Your task to perform on an android device: What's the weather? Image 0: 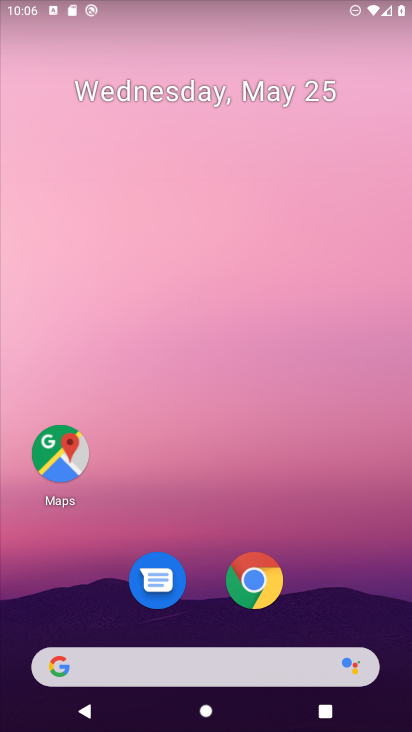
Step 0: press home button
Your task to perform on an android device: What's the weather? Image 1: 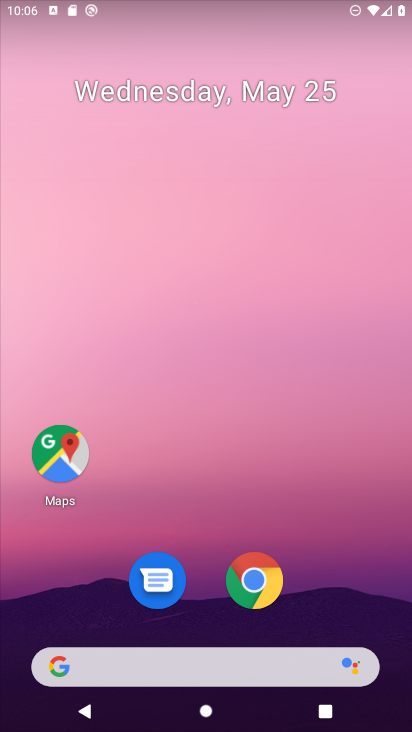
Step 1: click (140, 672)
Your task to perform on an android device: What's the weather? Image 2: 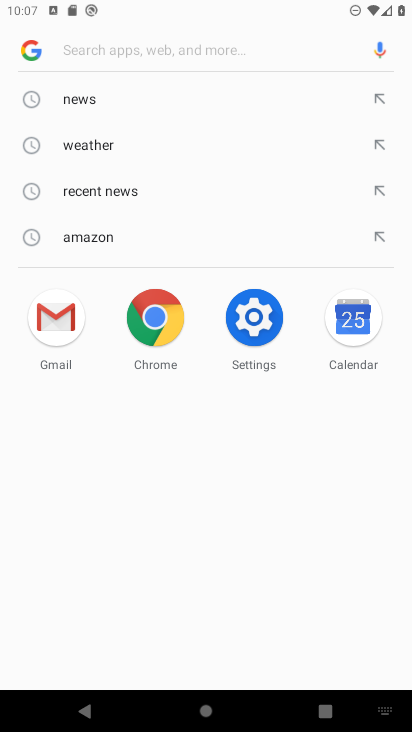
Step 2: click (91, 148)
Your task to perform on an android device: What's the weather? Image 3: 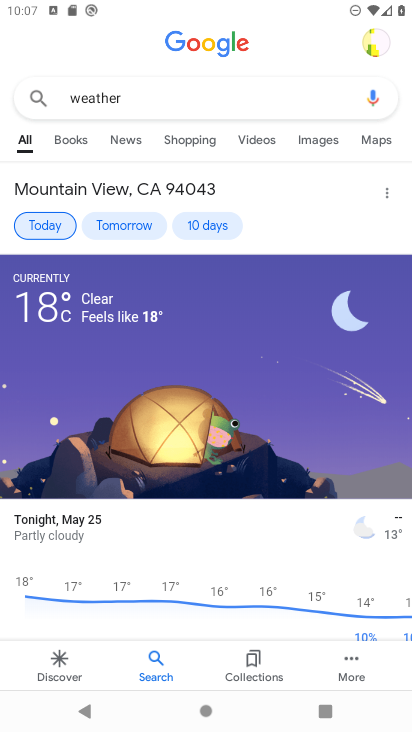
Step 3: task complete